Your task to perform on an android device: Turn on the flashlight Image 0: 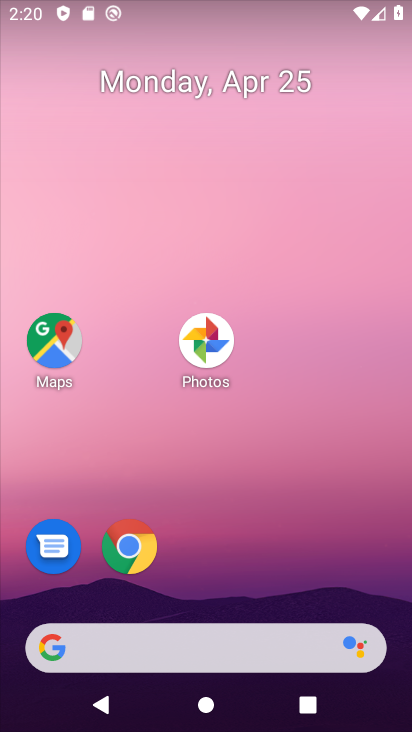
Step 0: drag from (191, 467) to (239, 222)
Your task to perform on an android device: Turn on the flashlight Image 1: 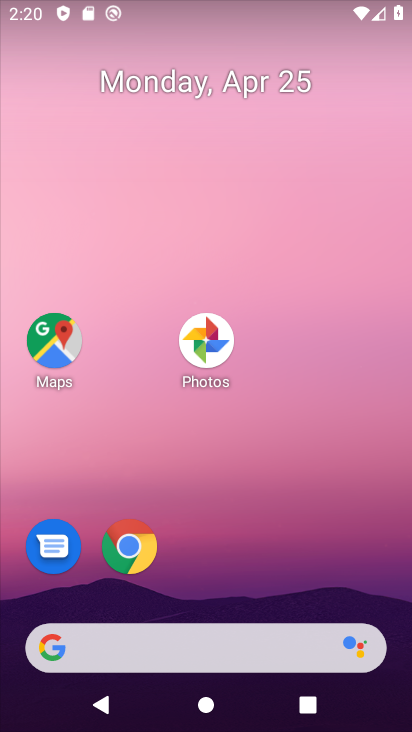
Step 1: drag from (235, 553) to (297, 225)
Your task to perform on an android device: Turn on the flashlight Image 2: 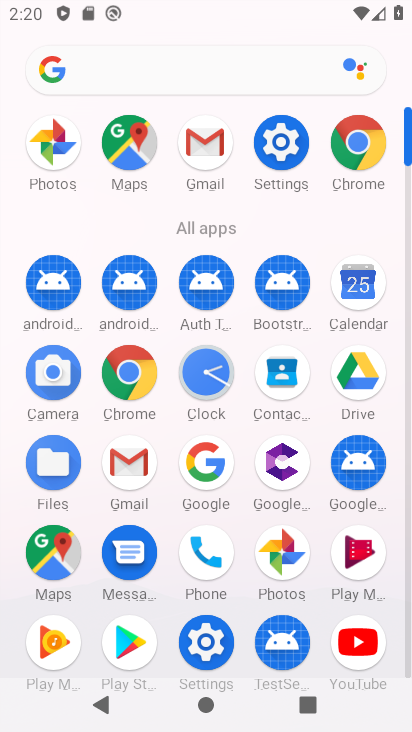
Step 2: click (280, 136)
Your task to perform on an android device: Turn on the flashlight Image 3: 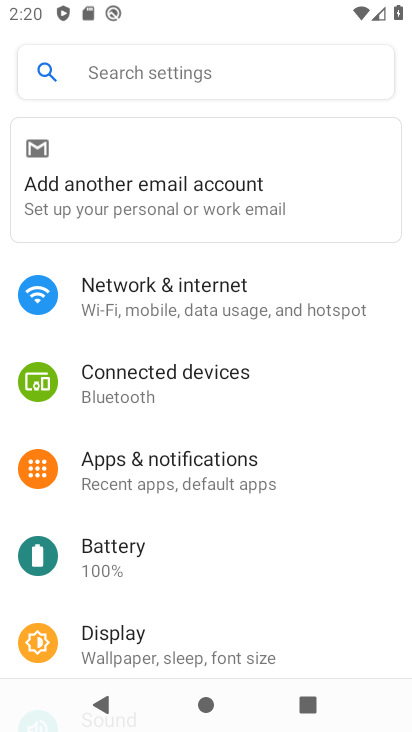
Step 3: task complete